Your task to perform on an android device: delete browsing data in the chrome app Image 0: 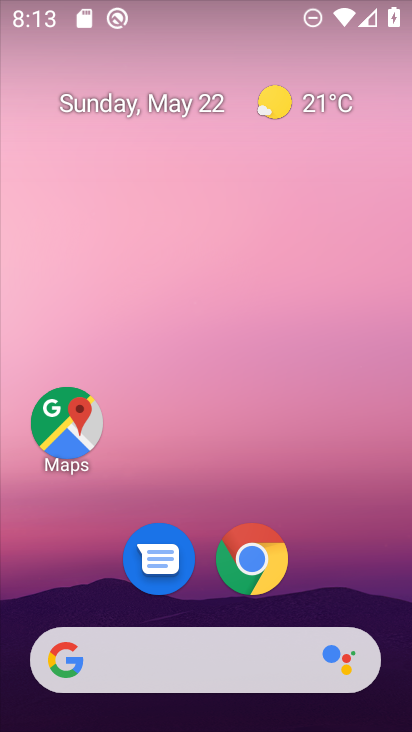
Step 0: drag from (223, 714) to (189, 180)
Your task to perform on an android device: delete browsing data in the chrome app Image 1: 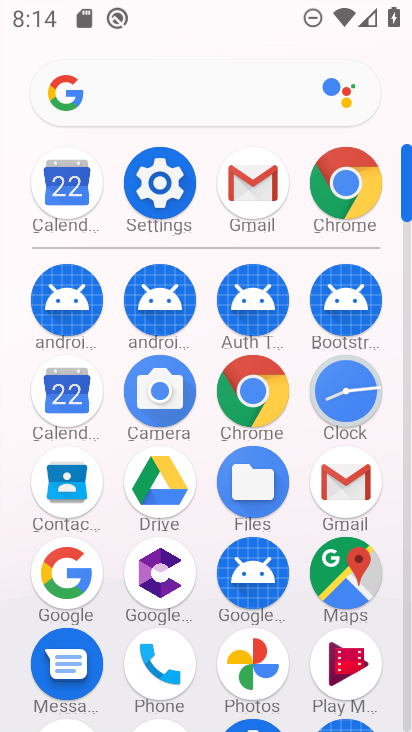
Step 1: click (324, 201)
Your task to perform on an android device: delete browsing data in the chrome app Image 2: 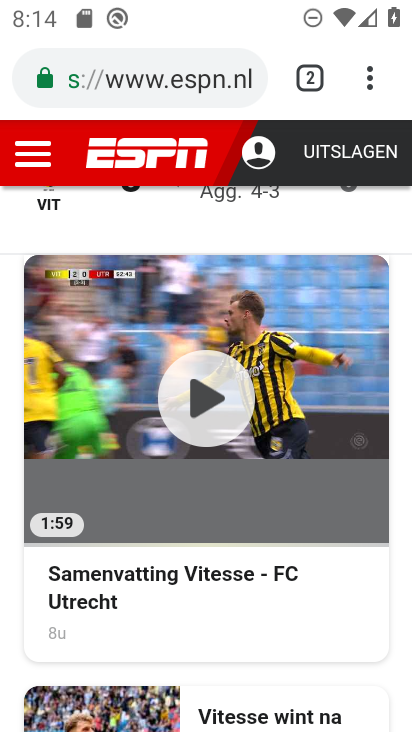
Step 2: click (370, 100)
Your task to perform on an android device: delete browsing data in the chrome app Image 3: 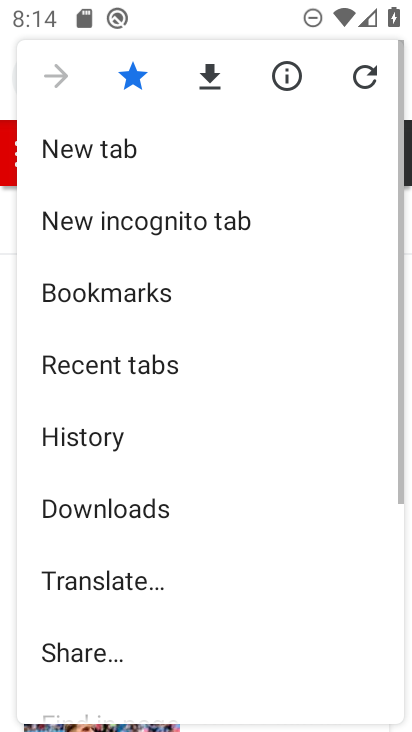
Step 3: drag from (172, 548) to (173, 228)
Your task to perform on an android device: delete browsing data in the chrome app Image 4: 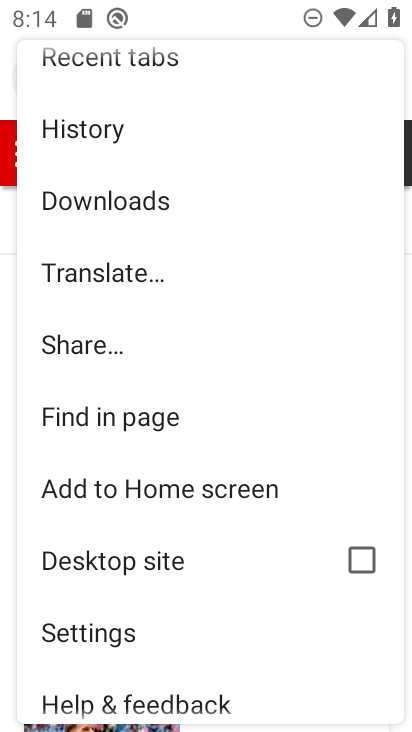
Step 4: click (152, 634)
Your task to perform on an android device: delete browsing data in the chrome app Image 5: 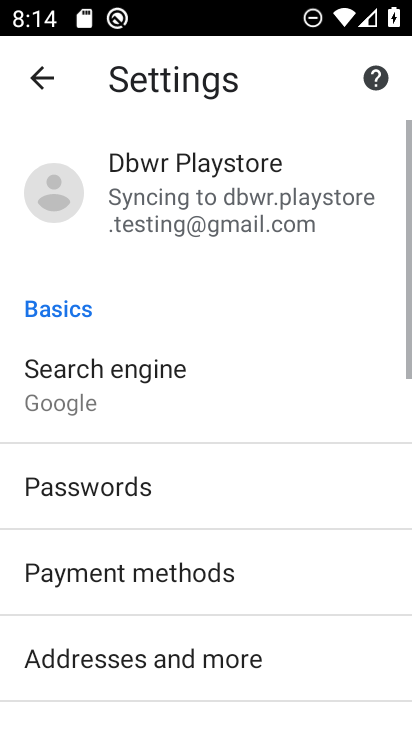
Step 5: drag from (180, 663) to (175, 312)
Your task to perform on an android device: delete browsing data in the chrome app Image 6: 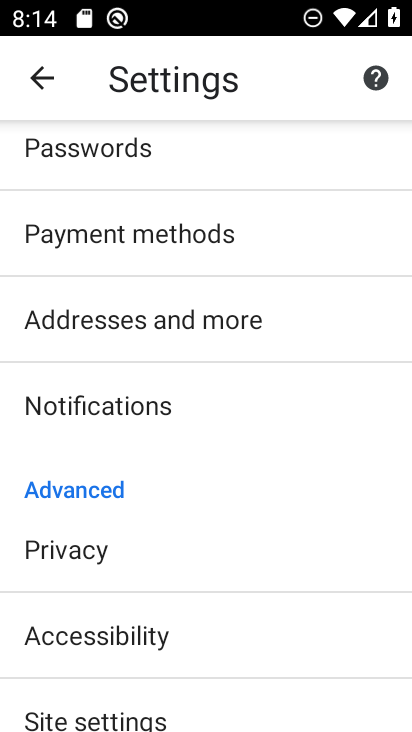
Step 6: click (94, 562)
Your task to perform on an android device: delete browsing data in the chrome app Image 7: 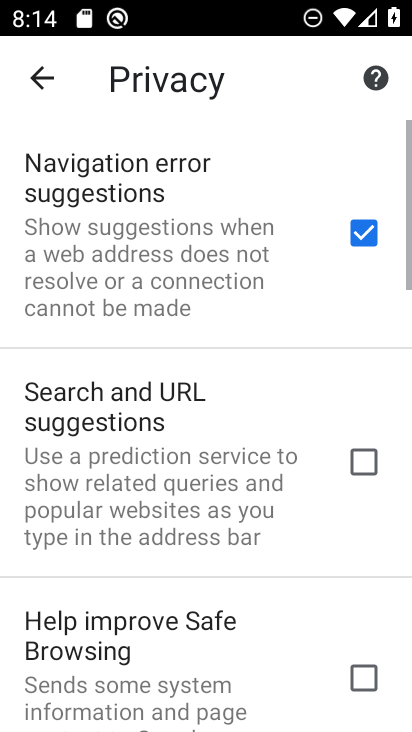
Step 7: click (227, 229)
Your task to perform on an android device: delete browsing data in the chrome app Image 8: 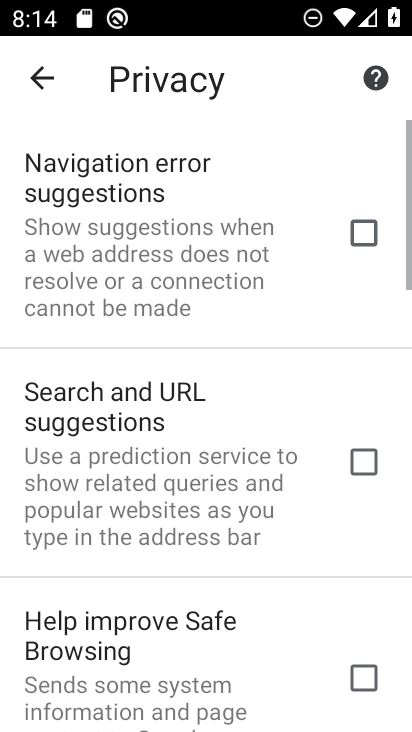
Step 8: drag from (230, 552) to (228, 160)
Your task to perform on an android device: delete browsing data in the chrome app Image 9: 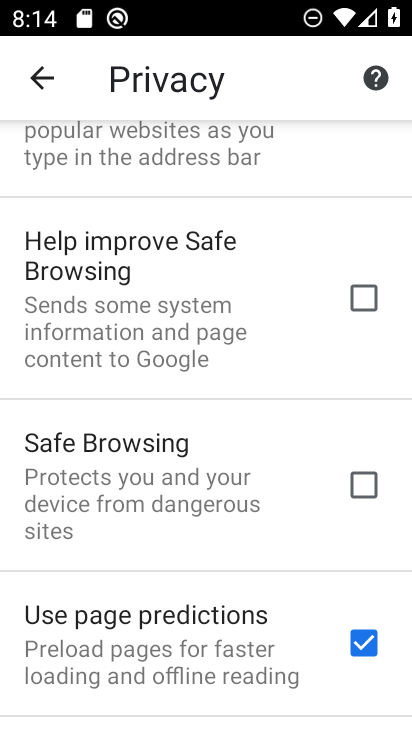
Step 9: drag from (231, 566) to (240, 274)
Your task to perform on an android device: delete browsing data in the chrome app Image 10: 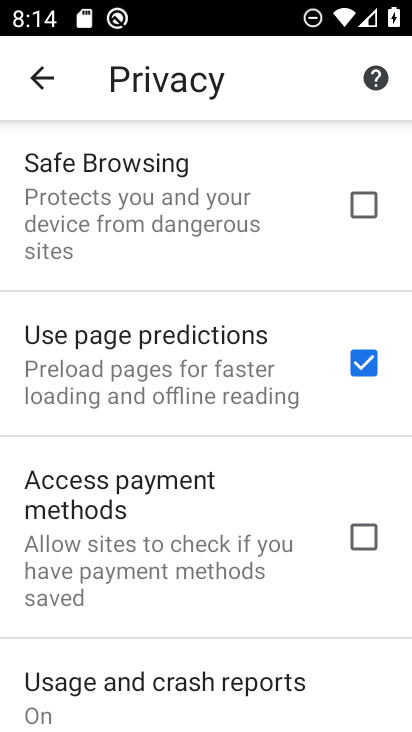
Step 10: drag from (241, 576) to (248, 212)
Your task to perform on an android device: delete browsing data in the chrome app Image 11: 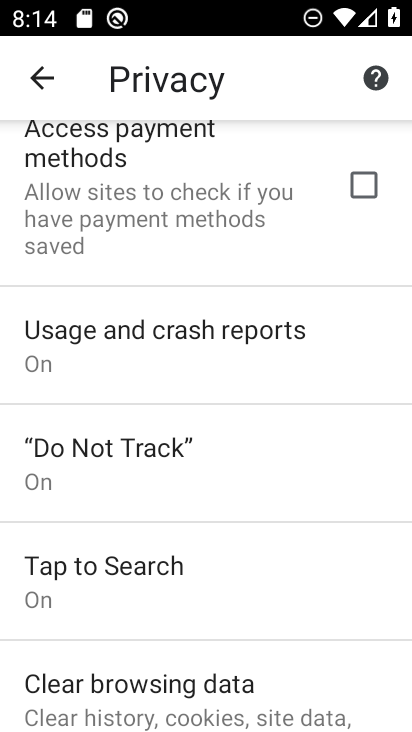
Step 11: drag from (256, 612) to (245, 276)
Your task to perform on an android device: delete browsing data in the chrome app Image 12: 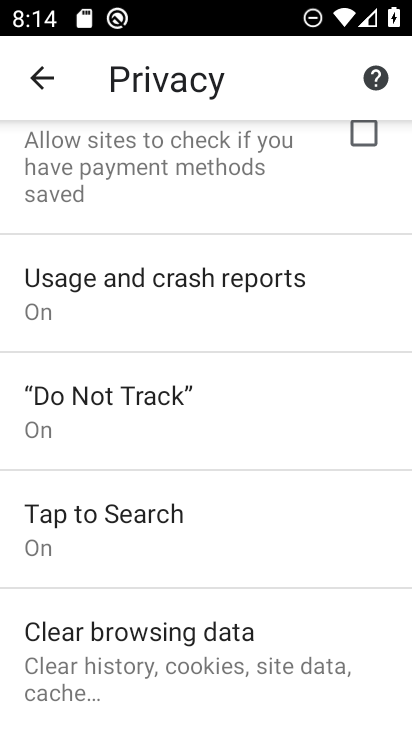
Step 12: click (182, 640)
Your task to perform on an android device: delete browsing data in the chrome app Image 13: 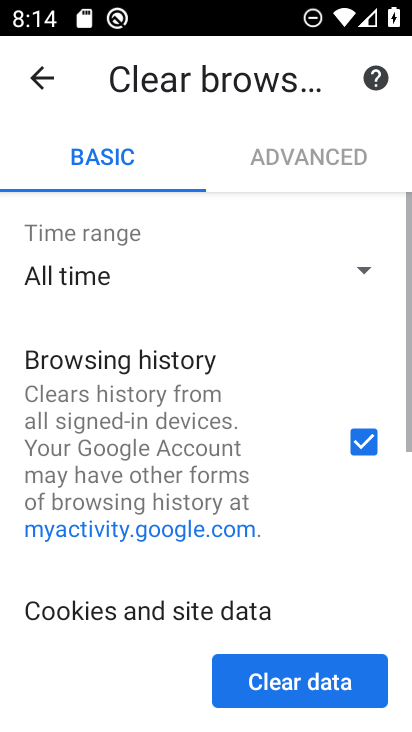
Step 13: click (363, 460)
Your task to perform on an android device: delete browsing data in the chrome app Image 14: 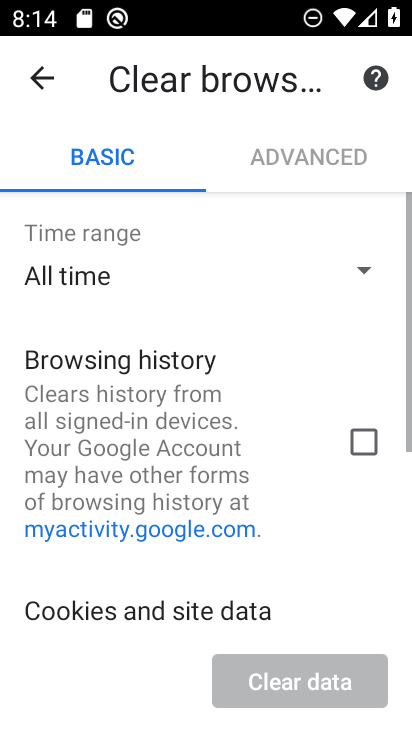
Step 14: drag from (232, 324) to (297, 612)
Your task to perform on an android device: delete browsing data in the chrome app Image 15: 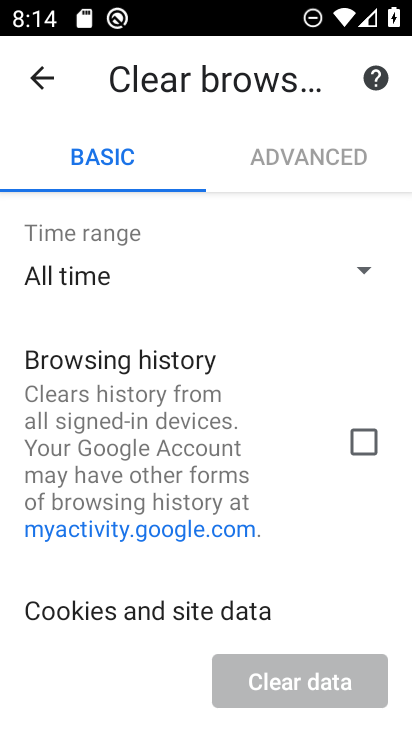
Step 15: click (362, 439)
Your task to perform on an android device: delete browsing data in the chrome app Image 16: 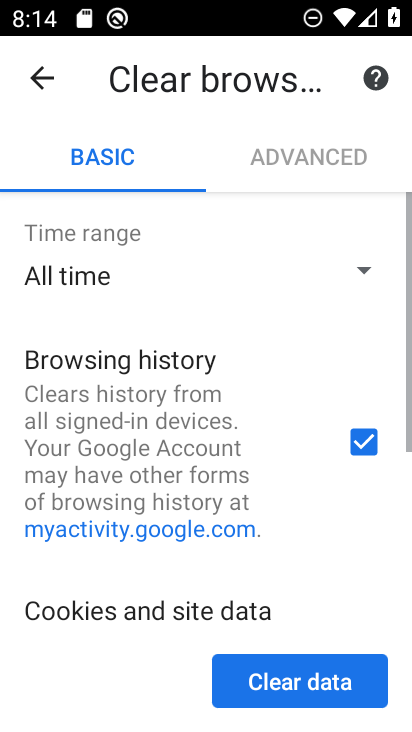
Step 16: click (358, 447)
Your task to perform on an android device: delete browsing data in the chrome app Image 17: 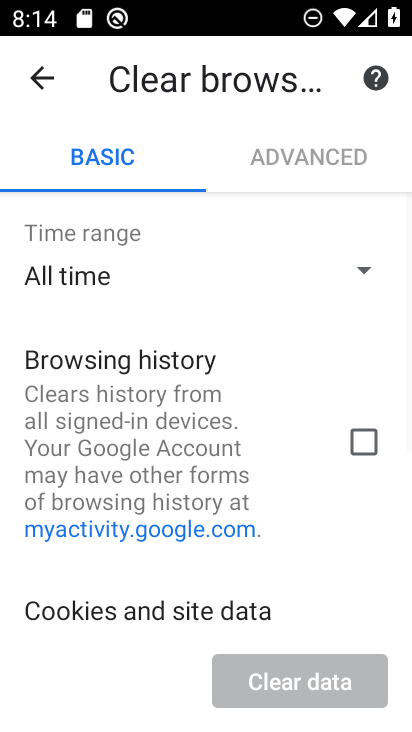
Step 17: click (358, 447)
Your task to perform on an android device: delete browsing data in the chrome app Image 18: 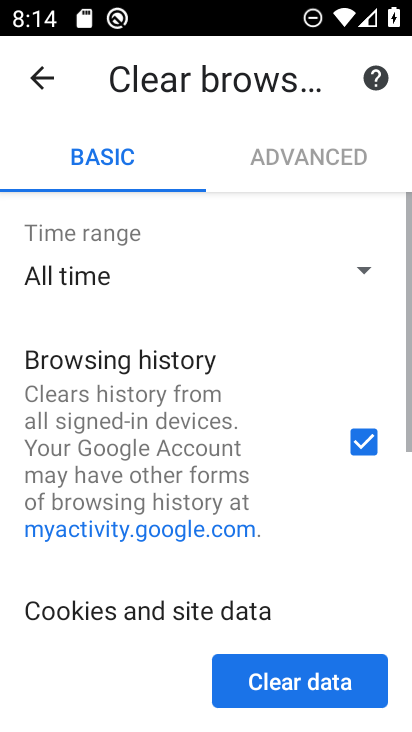
Step 18: click (306, 673)
Your task to perform on an android device: delete browsing data in the chrome app Image 19: 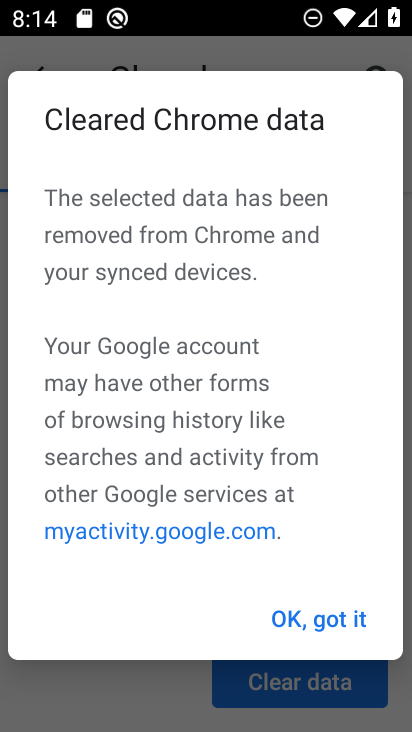
Step 19: task complete